Your task to perform on an android device: delete the emails in spam in the gmail app Image 0: 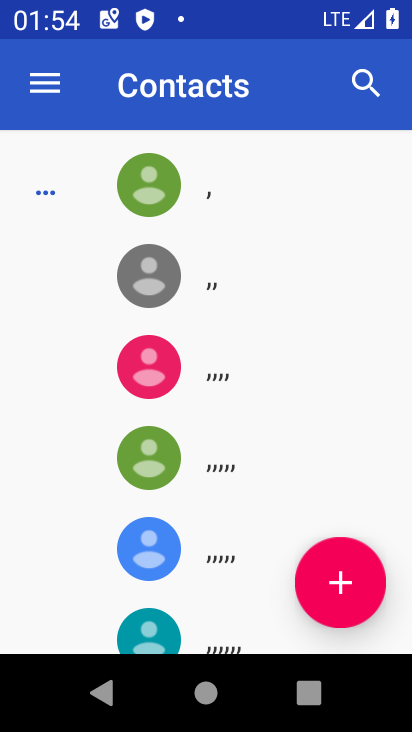
Step 0: press home button
Your task to perform on an android device: delete the emails in spam in the gmail app Image 1: 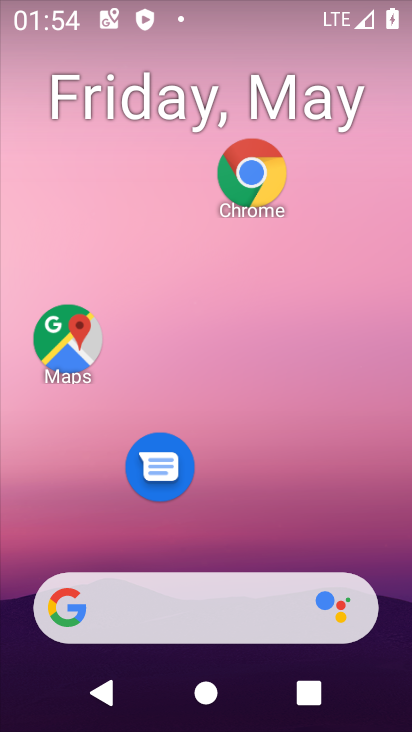
Step 1: drag from (249, 654) to (362, 67)
Your task to perform on an android device: delete the emails in spam in the gmail app Image 2: 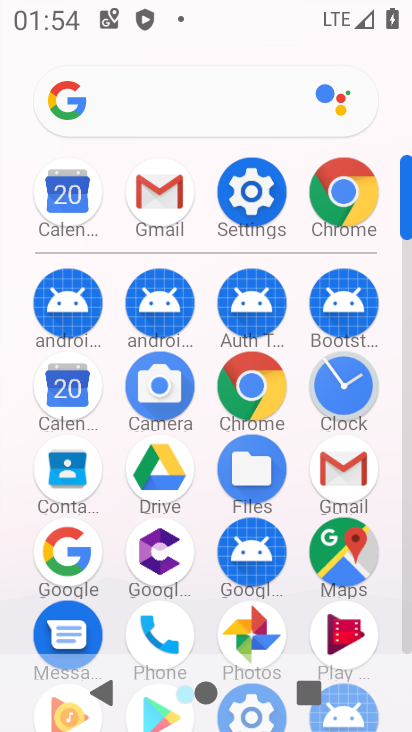
Step 2: click (330, 462)
Your task to perform on an android device: delete the emails in spam in the gmail app Image 3: 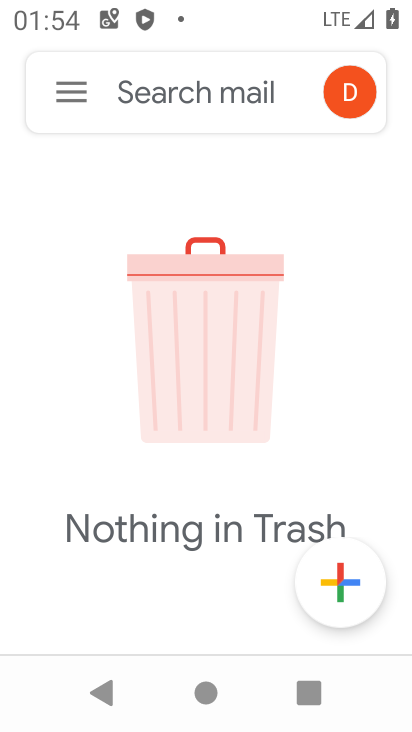
Step 3: click (65, 106)
Your task to perform on an android device: delete the emails in spam in the gmail app Image 4: 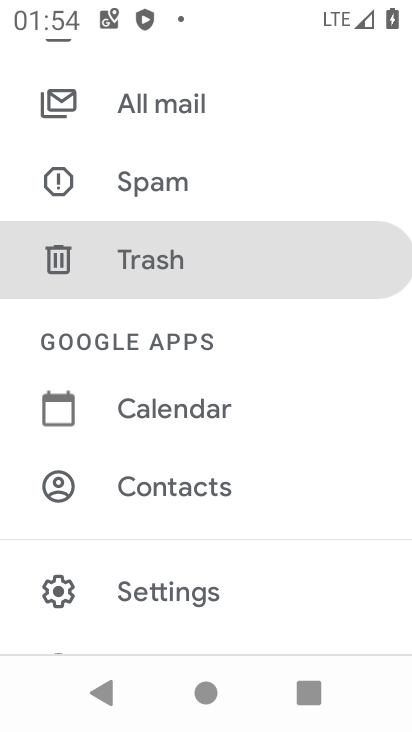
Step 4: click (200, 193)
Your task to perform on an android device: delete the emails in spam in the gmail app Image 5: 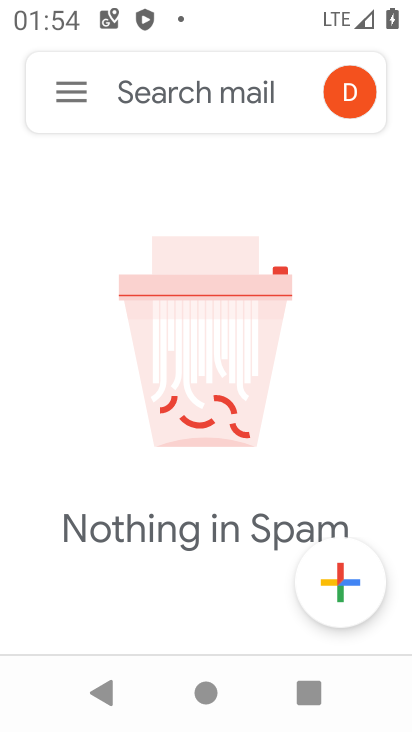
Step 5: task complete